Your task to perform on an android device: Show me productivity apps on the Play Store Image 0: 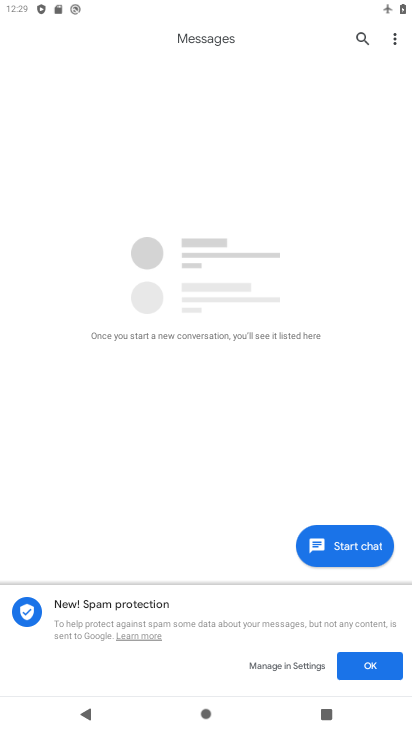
Step 0: press home button
Your task to perform on an android device: Show me productivity apps on the Play Store Image 1: 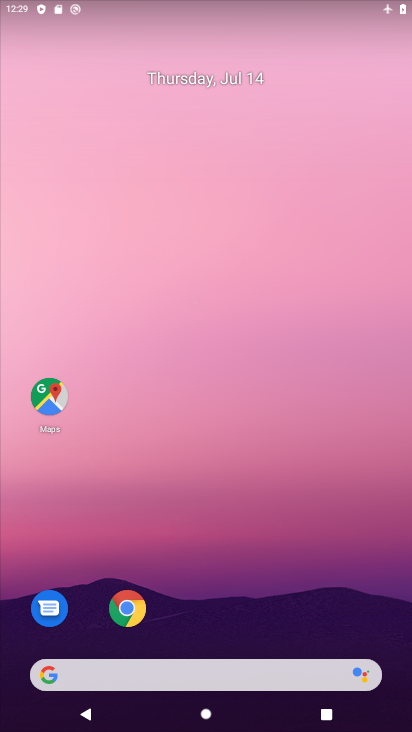
Step 1: drag from (327, 616) to (339, 170)
Your task to perform on an android device: Show me productivity apps on the Play Store Image 2: 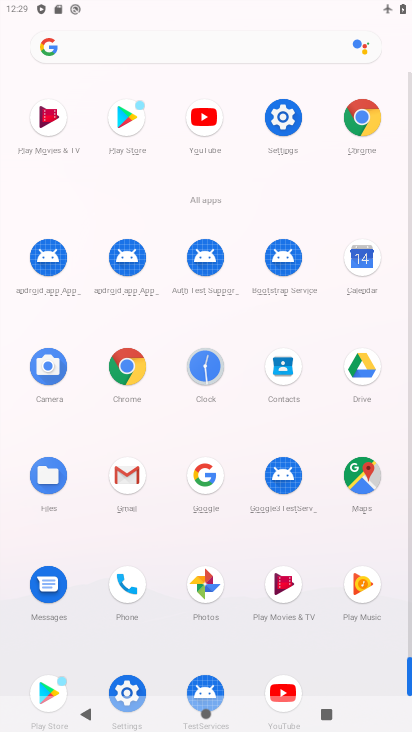
Step 2: drag from (373, 677) to (377, 462)
Your task to perform on an android device: Show me productivity apps on the Play Store Image 3: 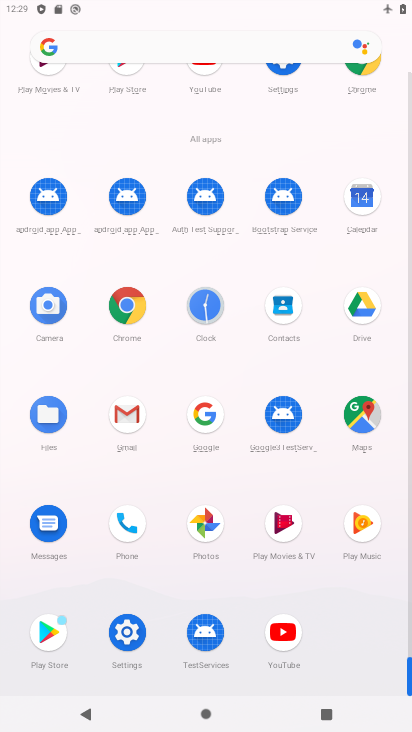
Step 3: click (50, 634)
Your task to perform on an android device: Show me productivity apps on the Play Store Image 4: 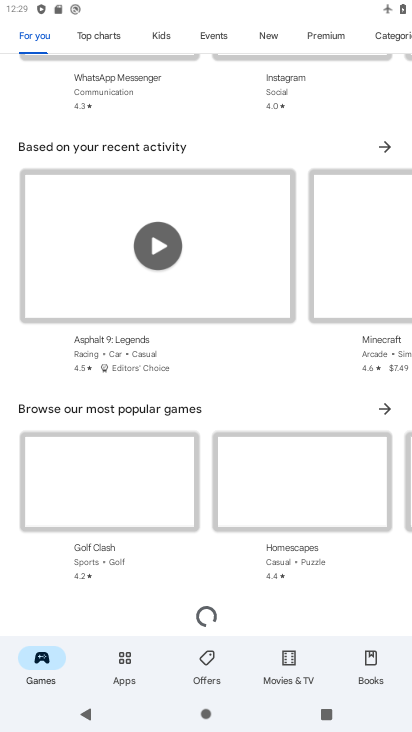
Step 4: click (127, 657)
Your task to perform on an android device: Show me productivity apps on the Play Store Image 5: 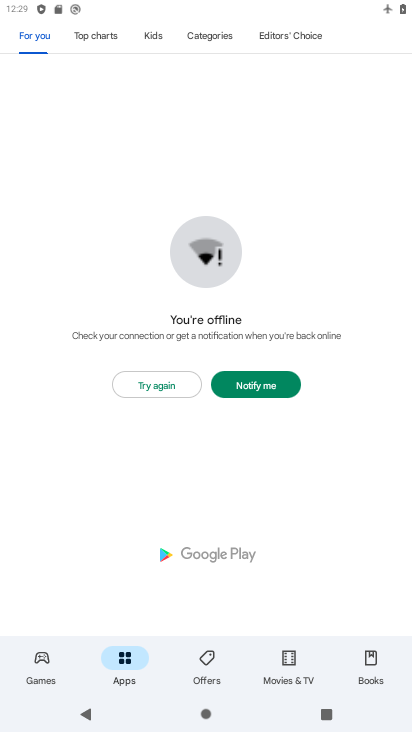
Step 5: task complete